Your task to perform on an android device: Go to Android settings Image 0: 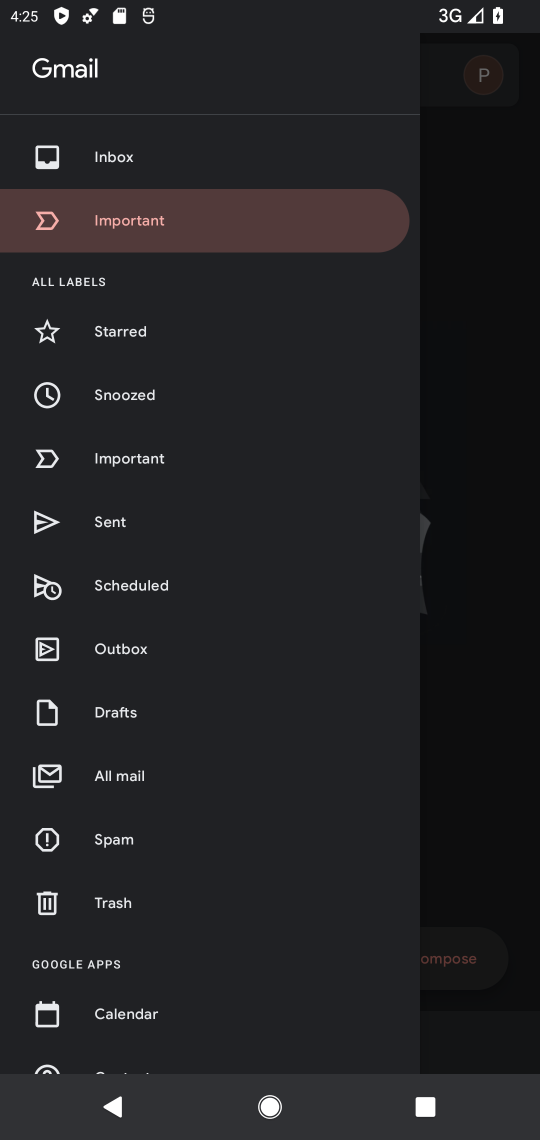
Step 0: press home button
Your task to perform on an android device: Go to Android settings Image 1: 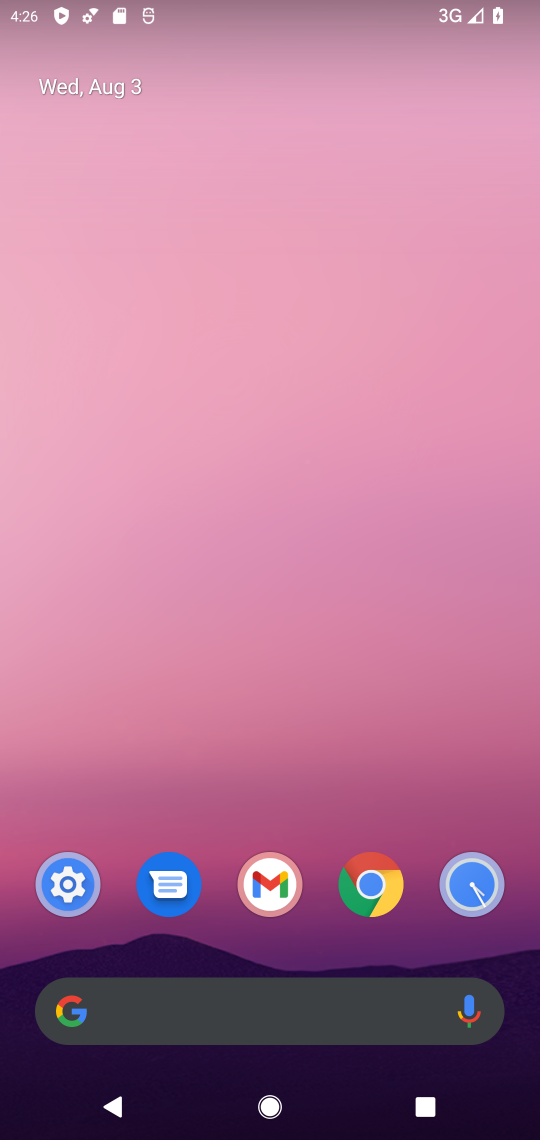
Step 1: task complete